Your task to perform on an android device: Open internet settings Image 0: 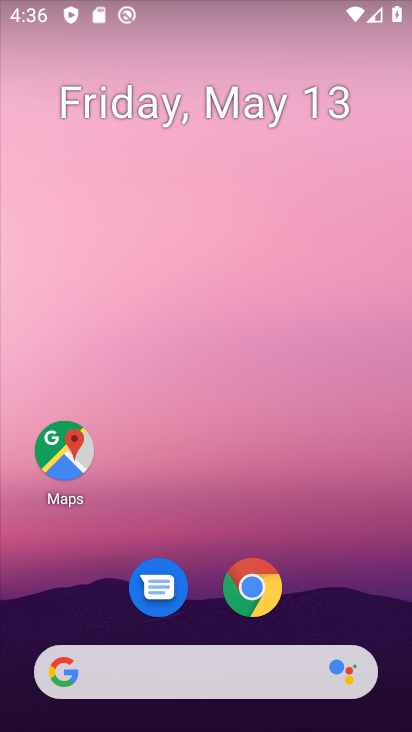
Step 0: drag from (340, 570) to (345, 33)
Your task to perform on an android device: Open internet settings Image 1: 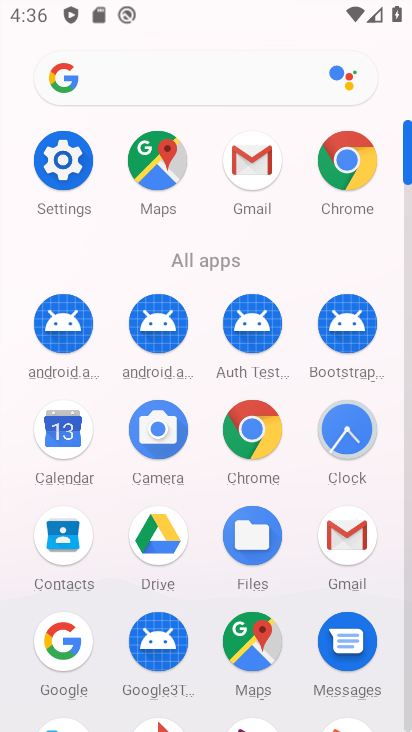
Step 1: click (79, 146)
Your task to perform on an android device: Open internet settings Image 2: 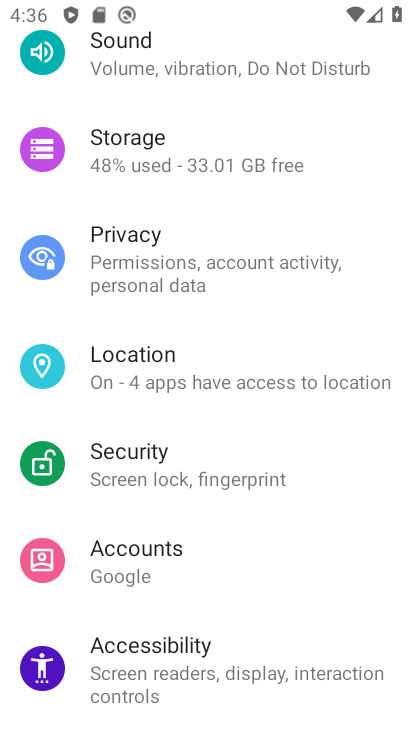
Step 2: drag from (298, 88) to (291, 568)
Your task to perform on an android device: Open internet settings Image 3: 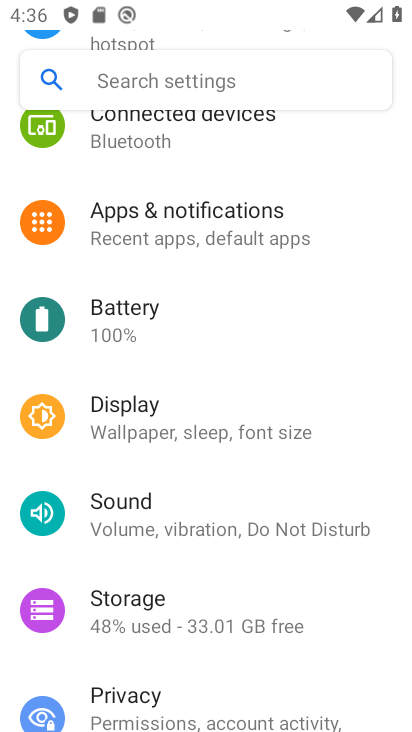
Step 3: drag from (294, 203) to (298, 649)
Your task to perform on an android device: Open internet settings Image 4: 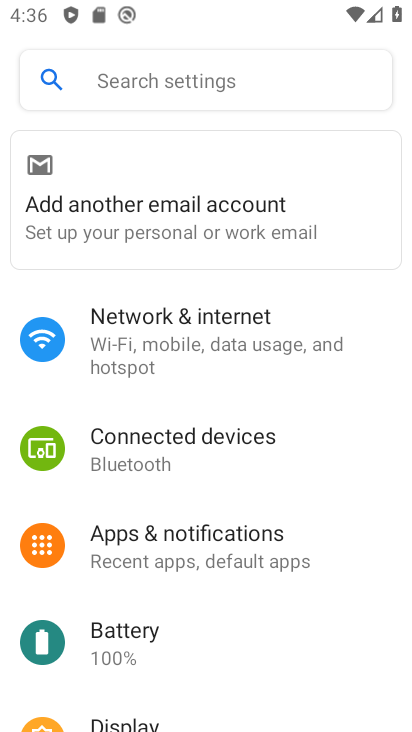
Step 4: click (199, 321)
Your task to perform on an android device: Open internet settings Image 5: 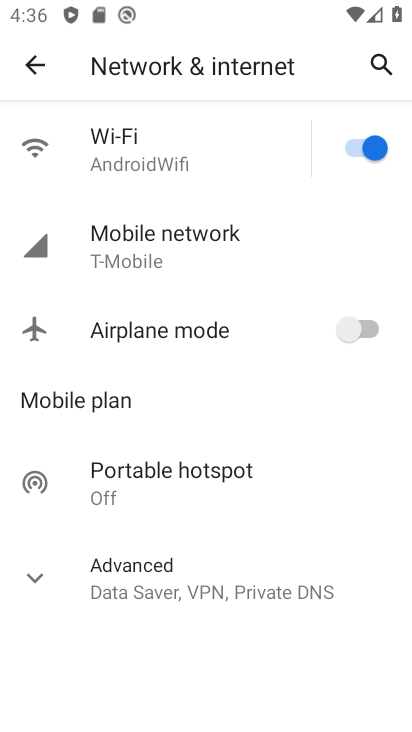
Step 5: task complete